Your task to perform on an android device: open app "Google Maps" (install if not already installed) Image 0: 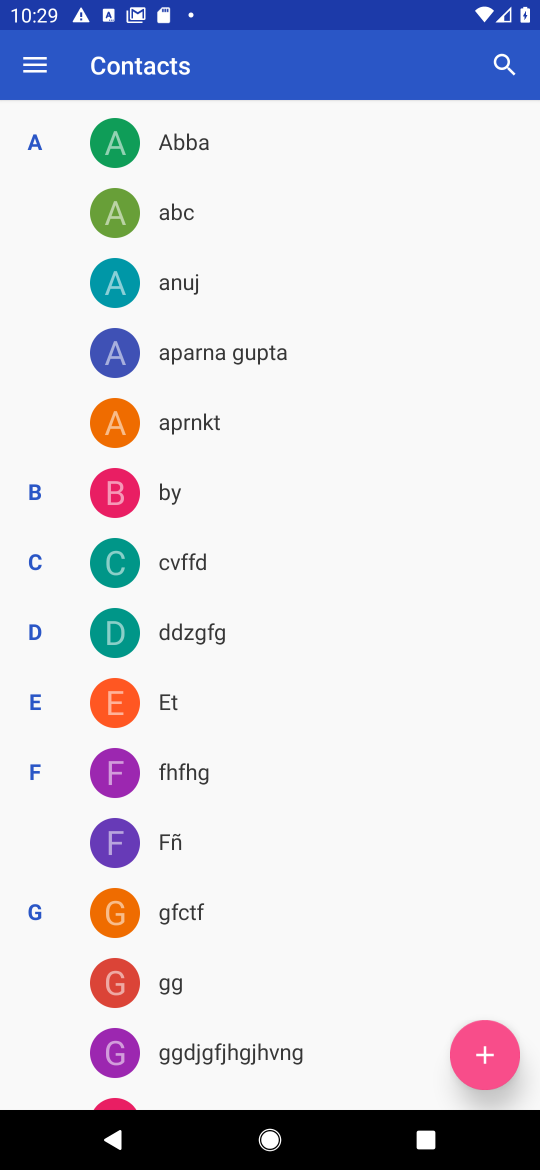
Step 0: press home button
Your task to perform on an android device: open app "Google Maps" (install if not already installed) Image 1: 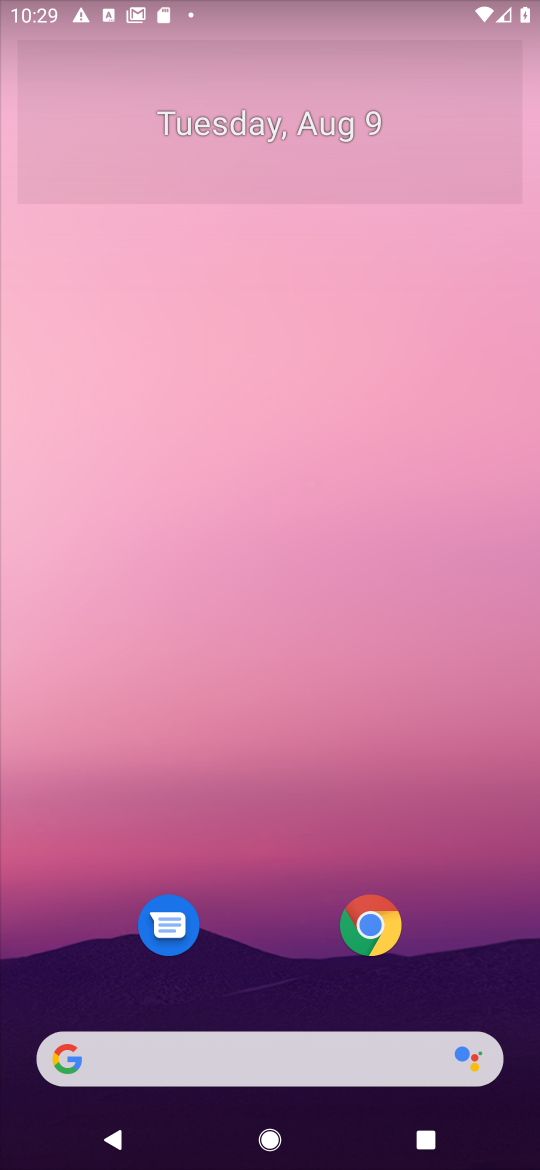
Step 1: drag from (257, 696) to (218, 13)
Your task to perform on an android device: open app "Google Maps" (install if not already installed) Image 2: 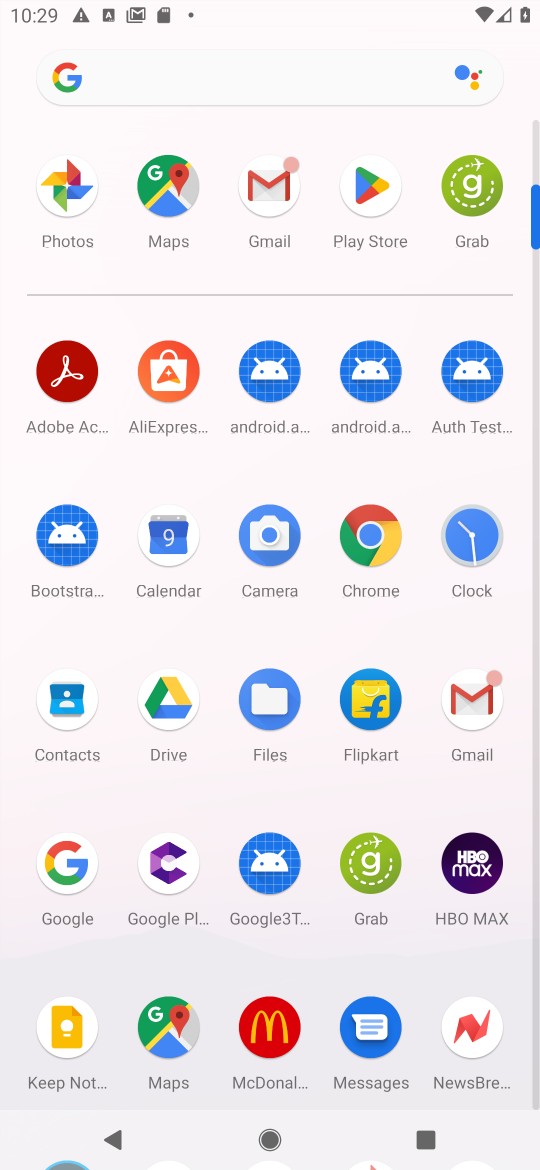
Step 2: click (379, 179)
Your task to perform on an android device: open app "Google Maps" (install if not already installed) Image 3: 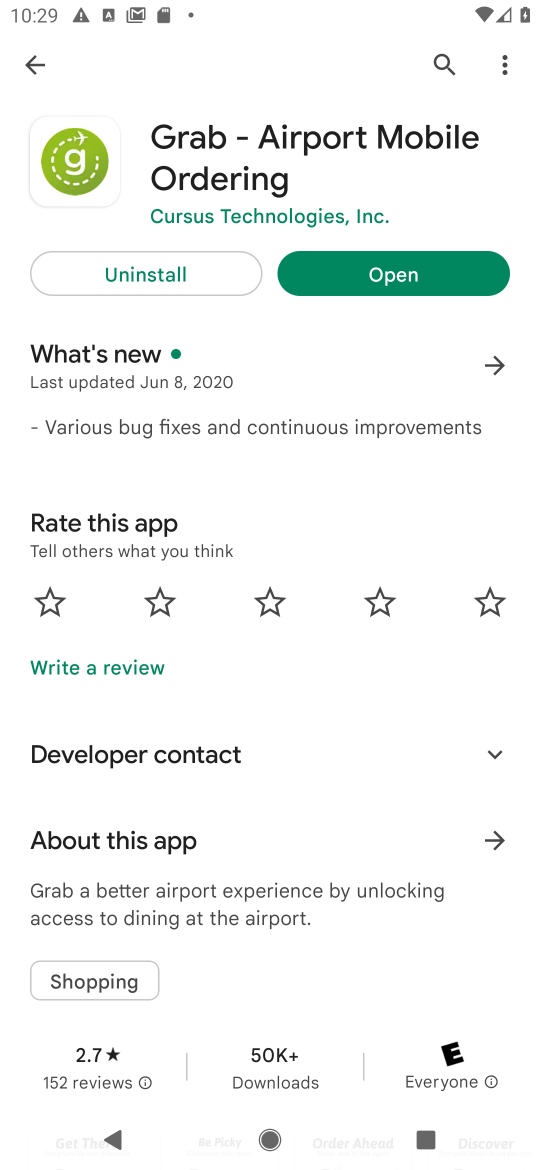
Step 3: click (30, 57)
Your task to perform on an android device: open app "Google Maps" (install if not already installed) Image 4: 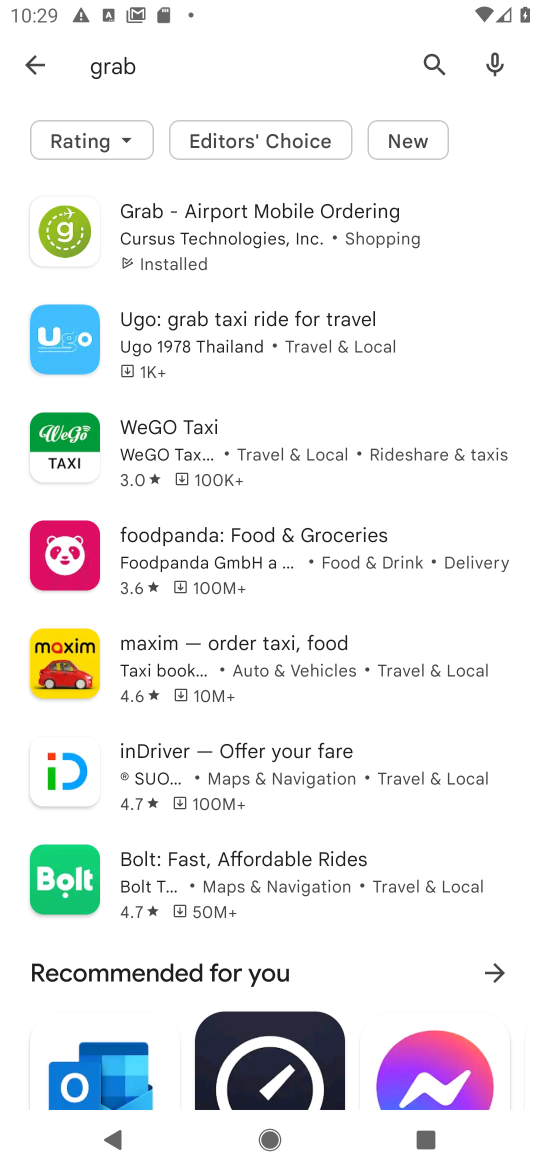
Step 4: click (35, 61)
Your task to perform on an android device: open app "Google Maps" (install if not already installed) Image 5: 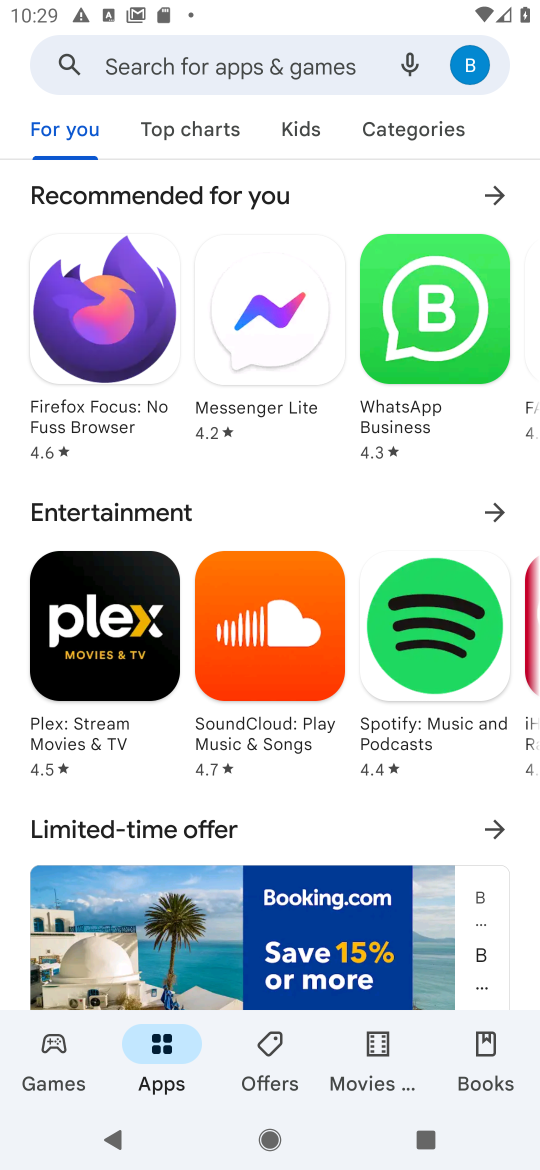
Step 5: click (186, 67)
Your task to perform on an android device: open app "Google Maps" (install if not already installed) Image 6: 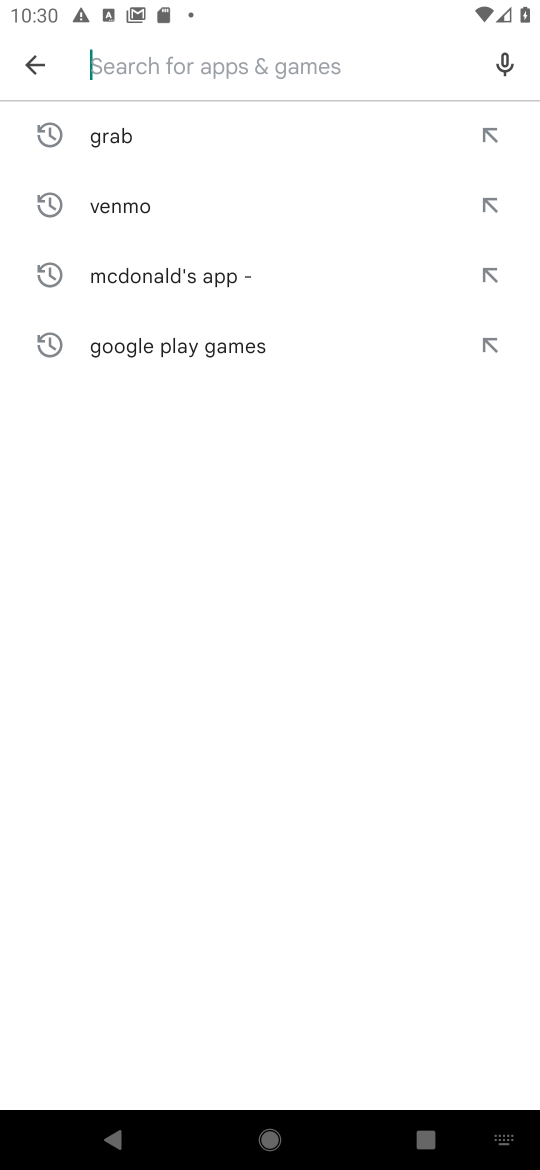
Step 6: type "Google Maps"
Your task to perform on an android device: open app "Google Maps" (install if not already installed) Image 7: 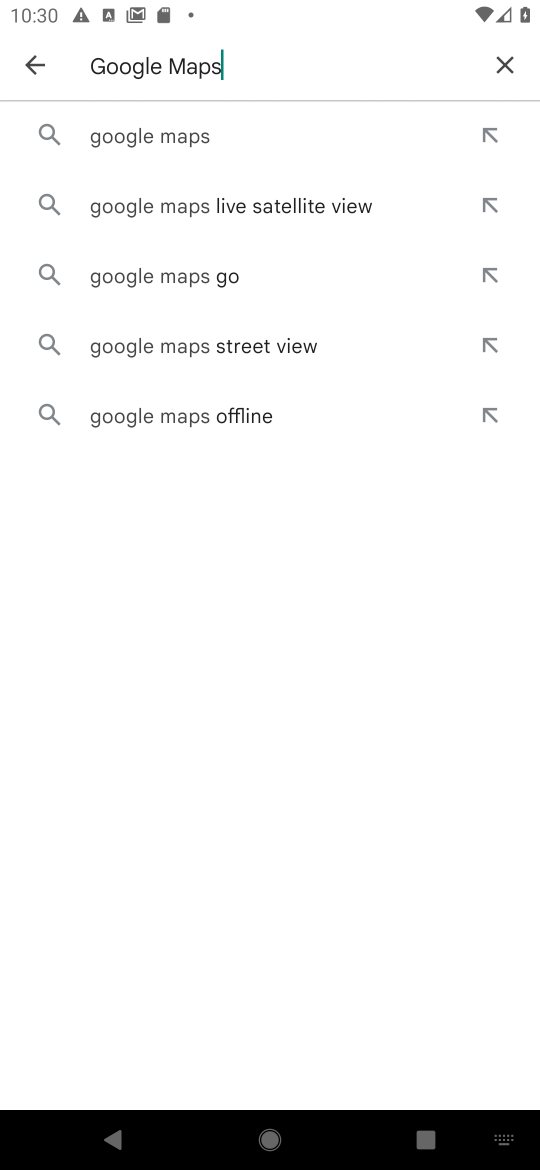
Step 7: click (146, 136)
Your task to perform on an android device: open app "Google Maps" (install if not already installed) Image 8: 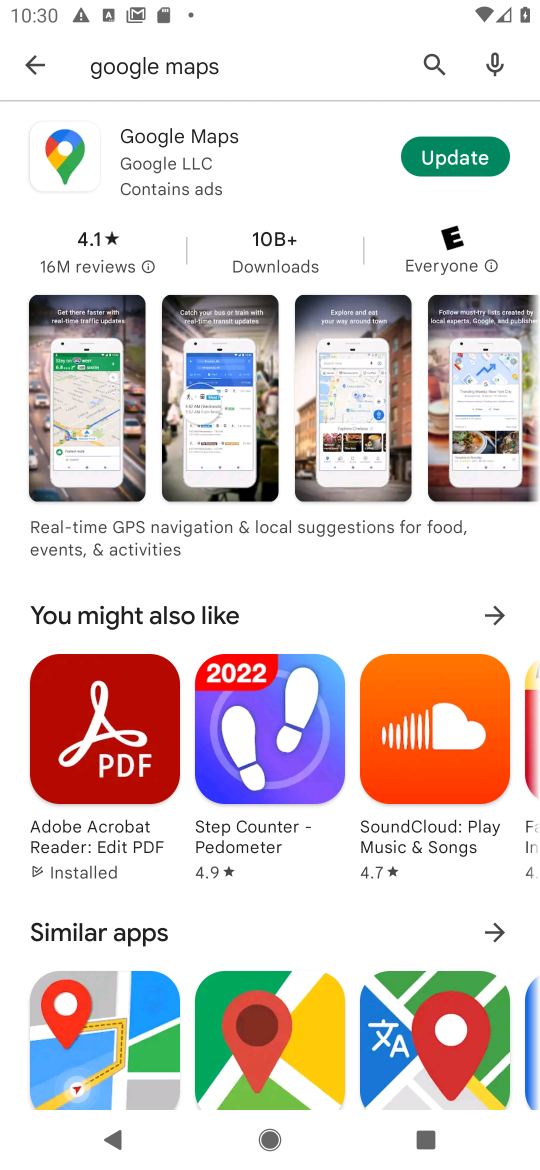
Step 8: click (451, 166)
Your task to perform on an android device: open app "Google Maps" (install if not already installed) Image 9: 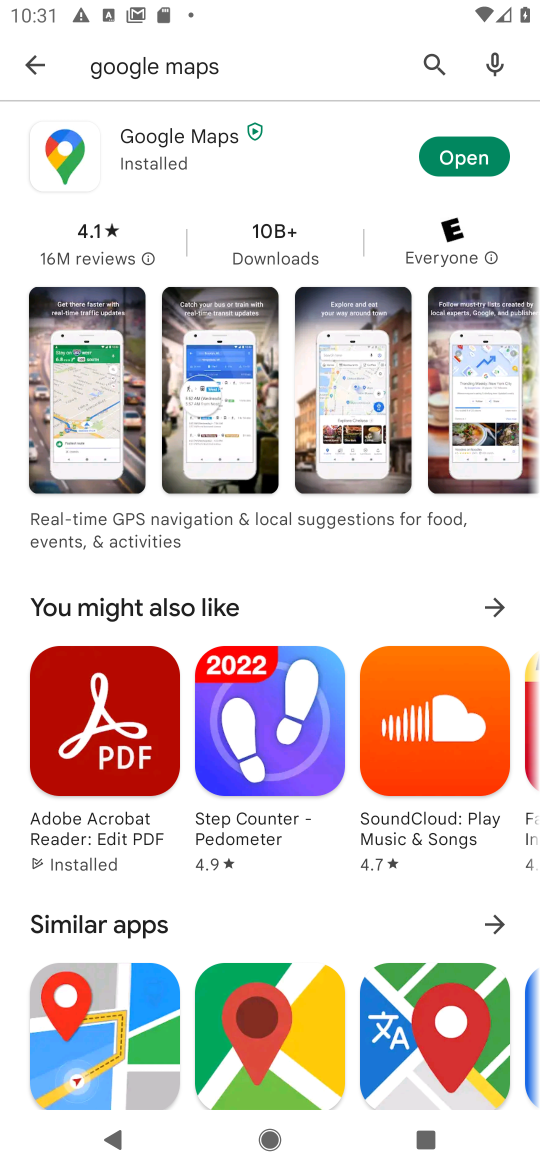
Step 9: click (451, 166)
Your task to perform on an android device: open app "Google Maps" (install if not already installed) Image 10: 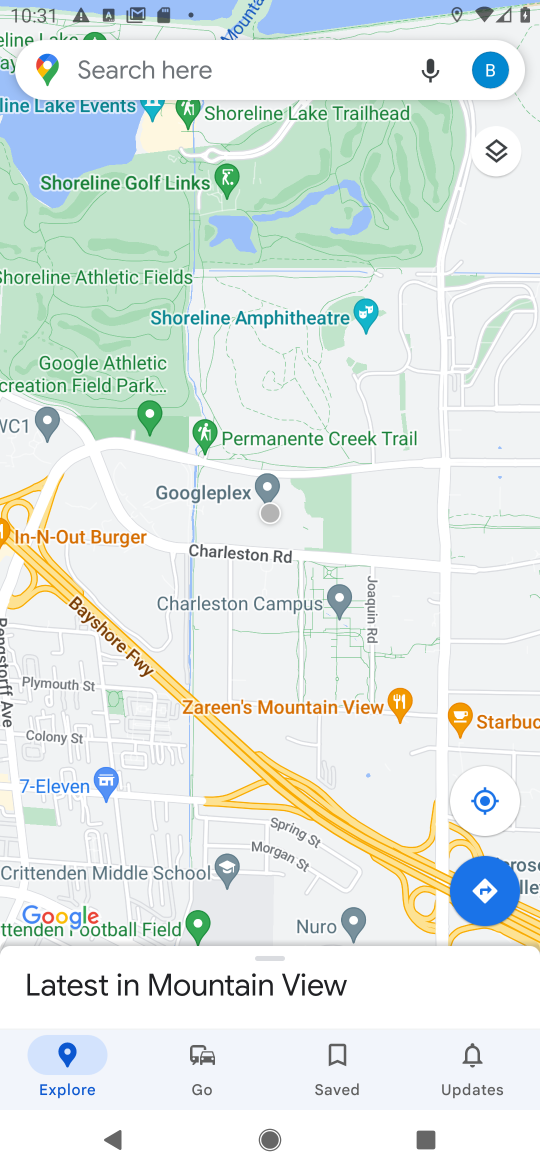
Step 10: task complete